Your task to perform on an android device: View the shopping cart on target. Search for "bose soundsport free" on target, select the first entry, and add it to the cart. Image 0: 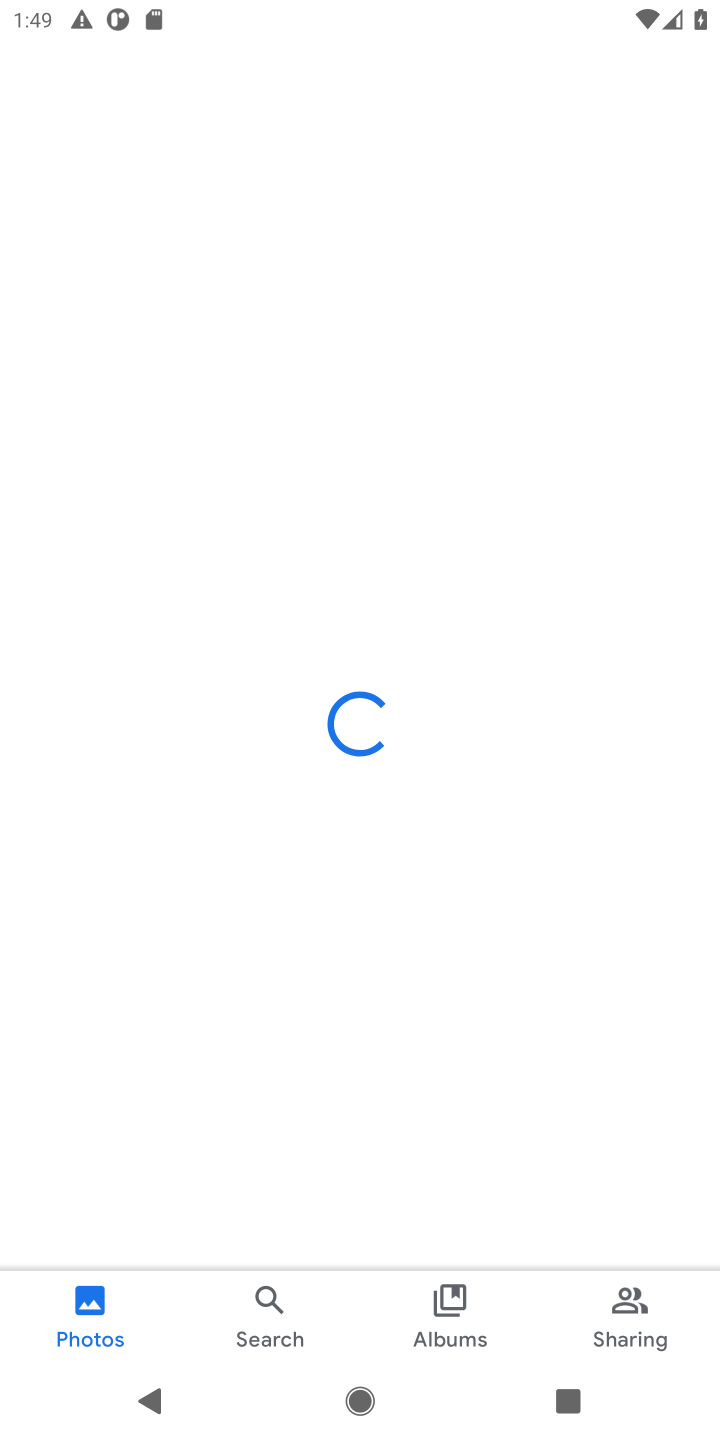
Step 0: press home button
Your task to perform on an android device: View the shopping cart on target. Search for "bose soundsport free" on target, select the first entry, and add it to the cart. Image 1: 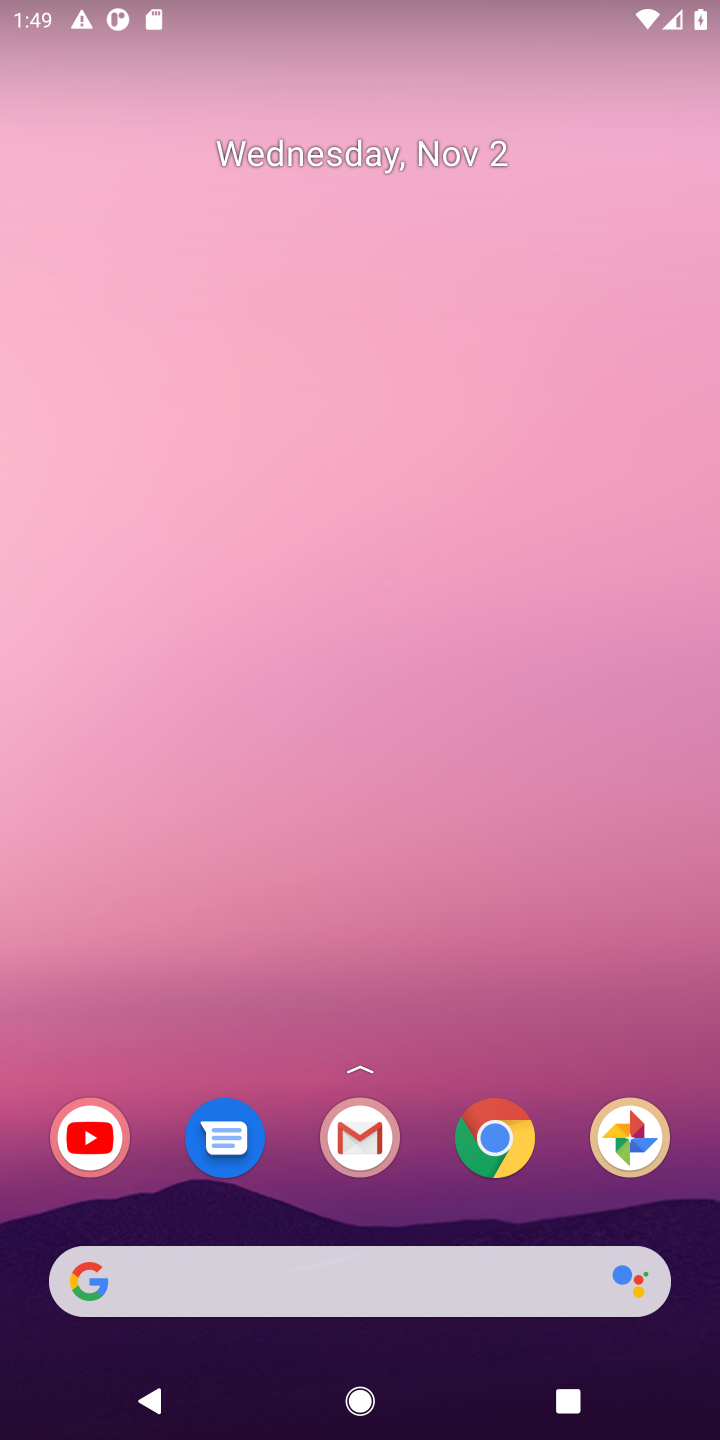
Step 1: click (142, 1277)
Your task to perform on an android device: View the shopping cart on target. Search for "bose soundsport free" on target, select the first entry, and add it to the cart. Image 2: 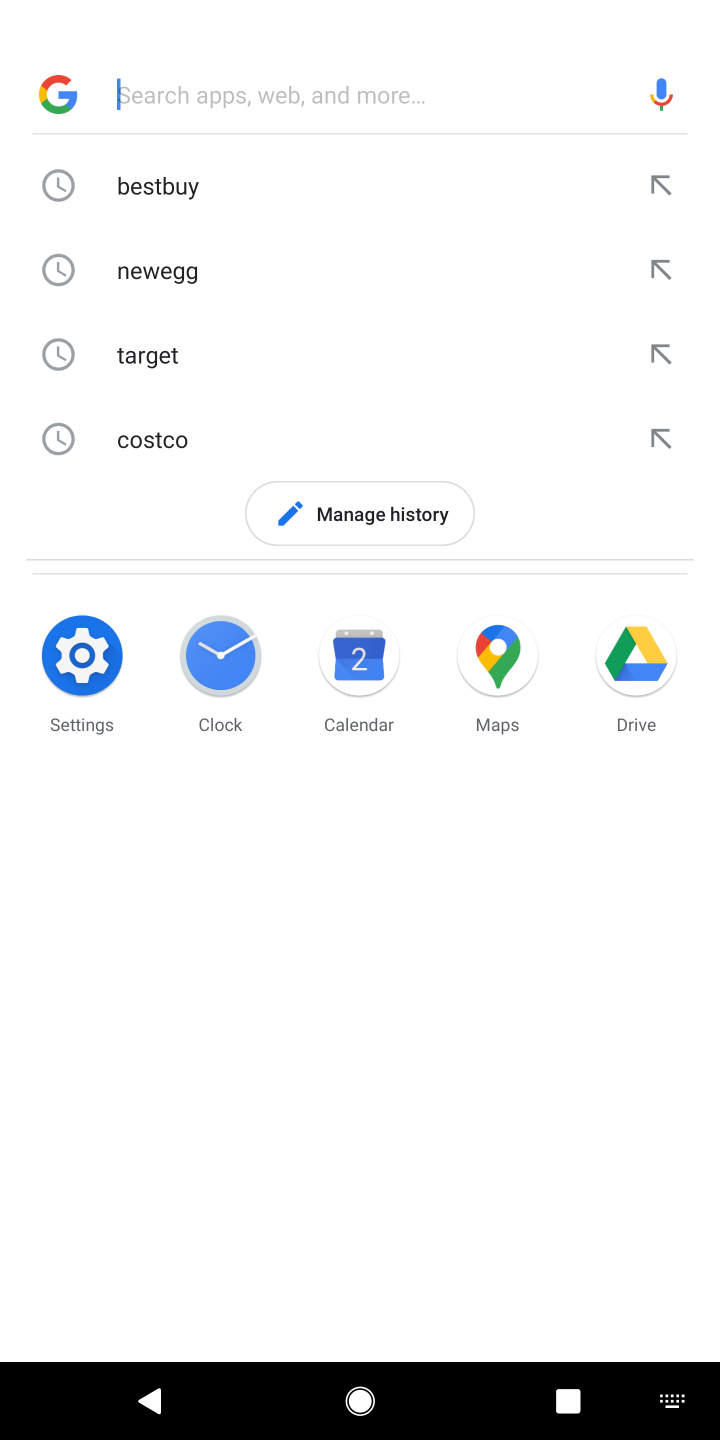
Step 2: click (145, 354)
Your task to perform on an android device: View the shopping cart on target. Search for "bose soundsport free" on target, select the first entry, and add it to the cart. Image 3: 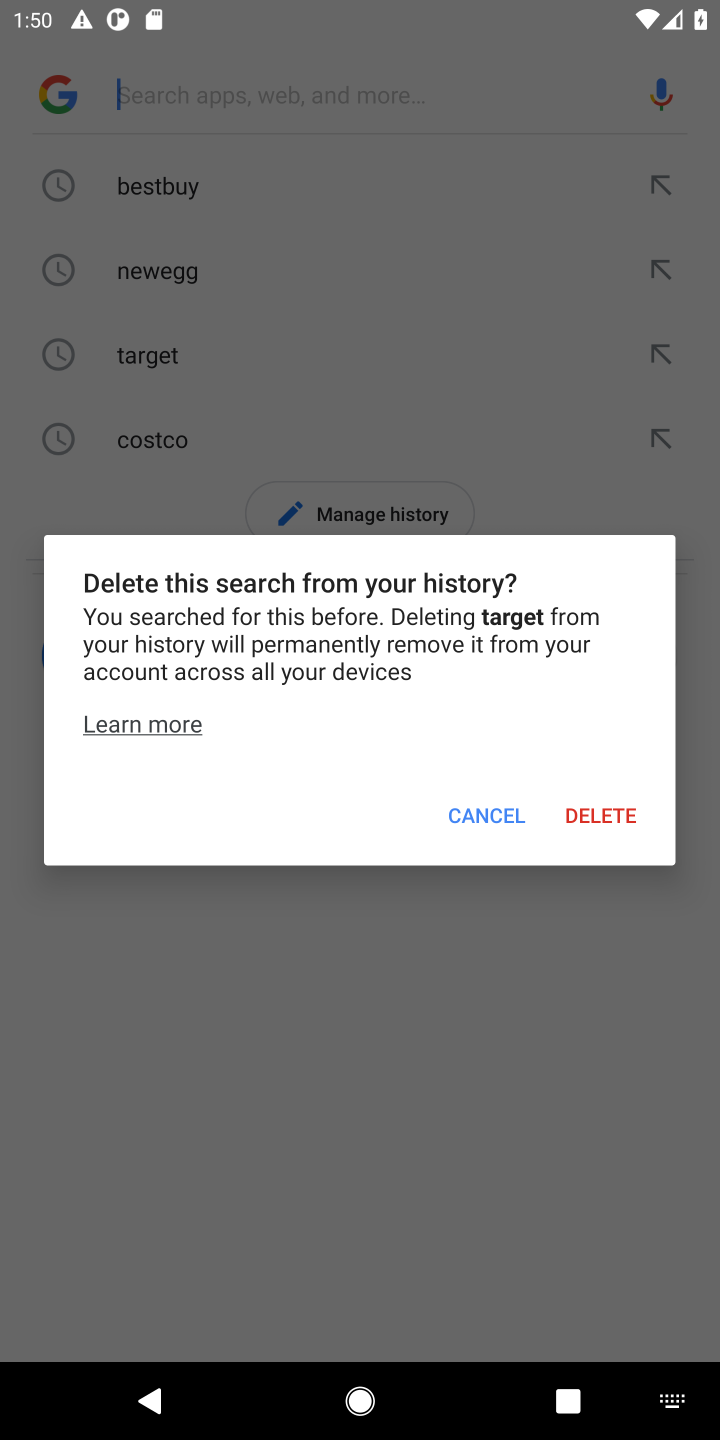
Step 3: click (496, 819)
Your task to perform on an android device: View the shopping cart on target. Search for "bose soundsport free" on target, select the first entry, and add it to the cart. Image 4: 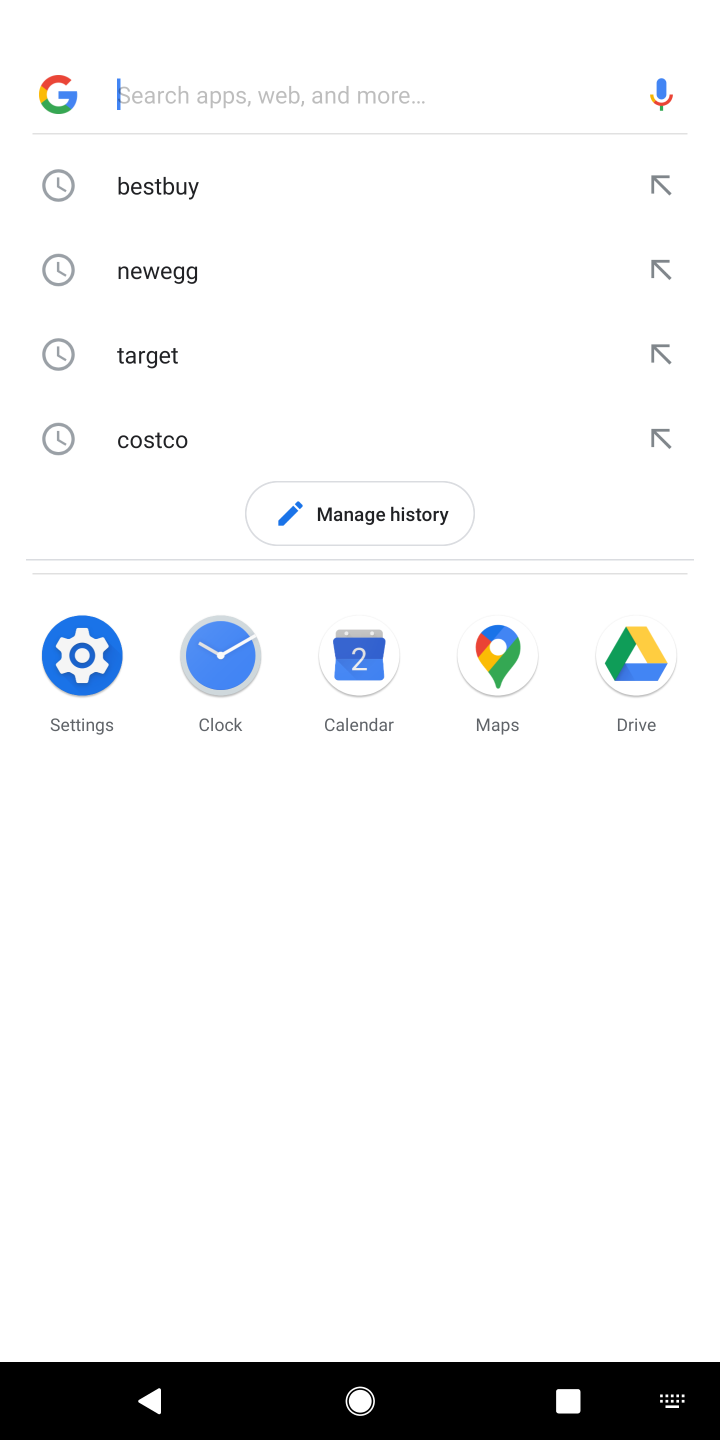
Step 4: click (146, 344)
Your task to perform on an android device: View the shopping cart on target. Search for "bose soundsport free" on target, select the first entry, and add it to the cart. Image 5: 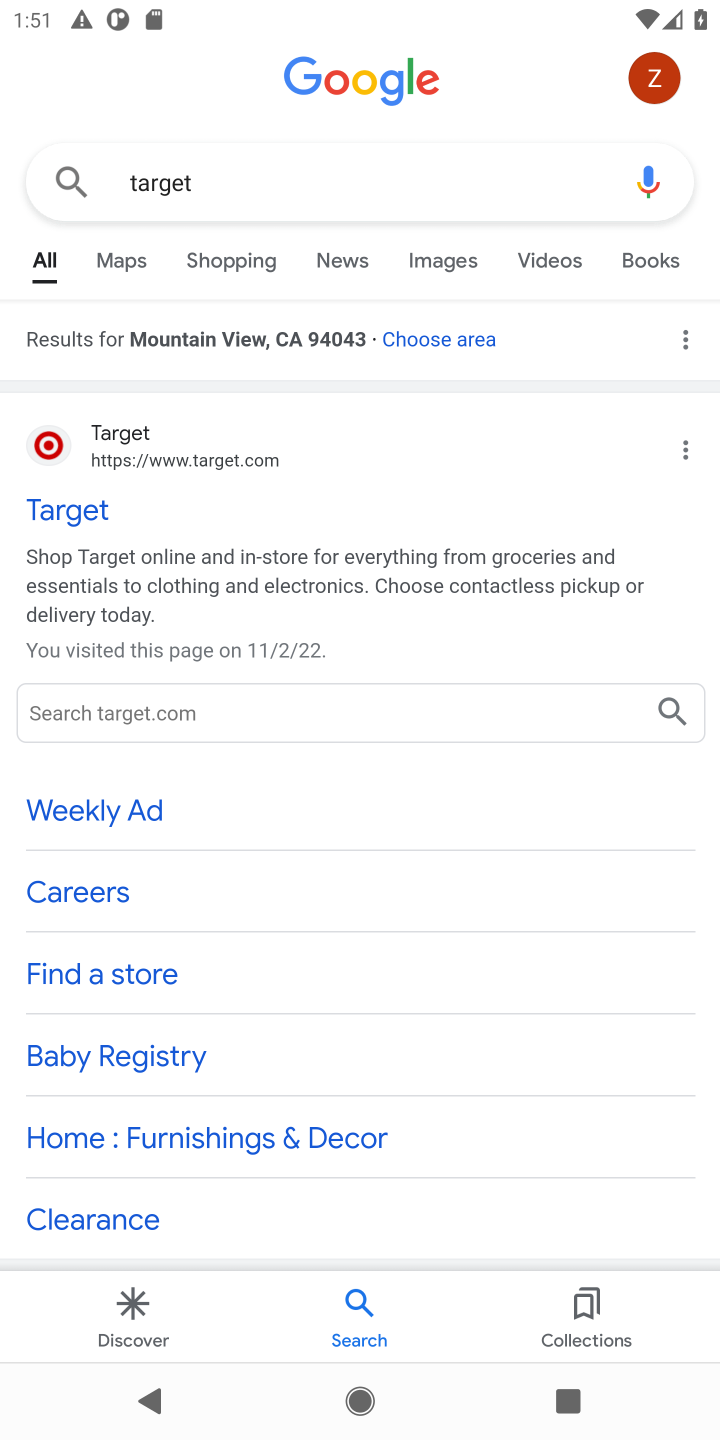
Step 5: click (72, 500)
Your task to perform on an android device: View the shopping cart on target. Search for "bose soundsport free" on target, select the first entry, and add it to the cart. Image 6: 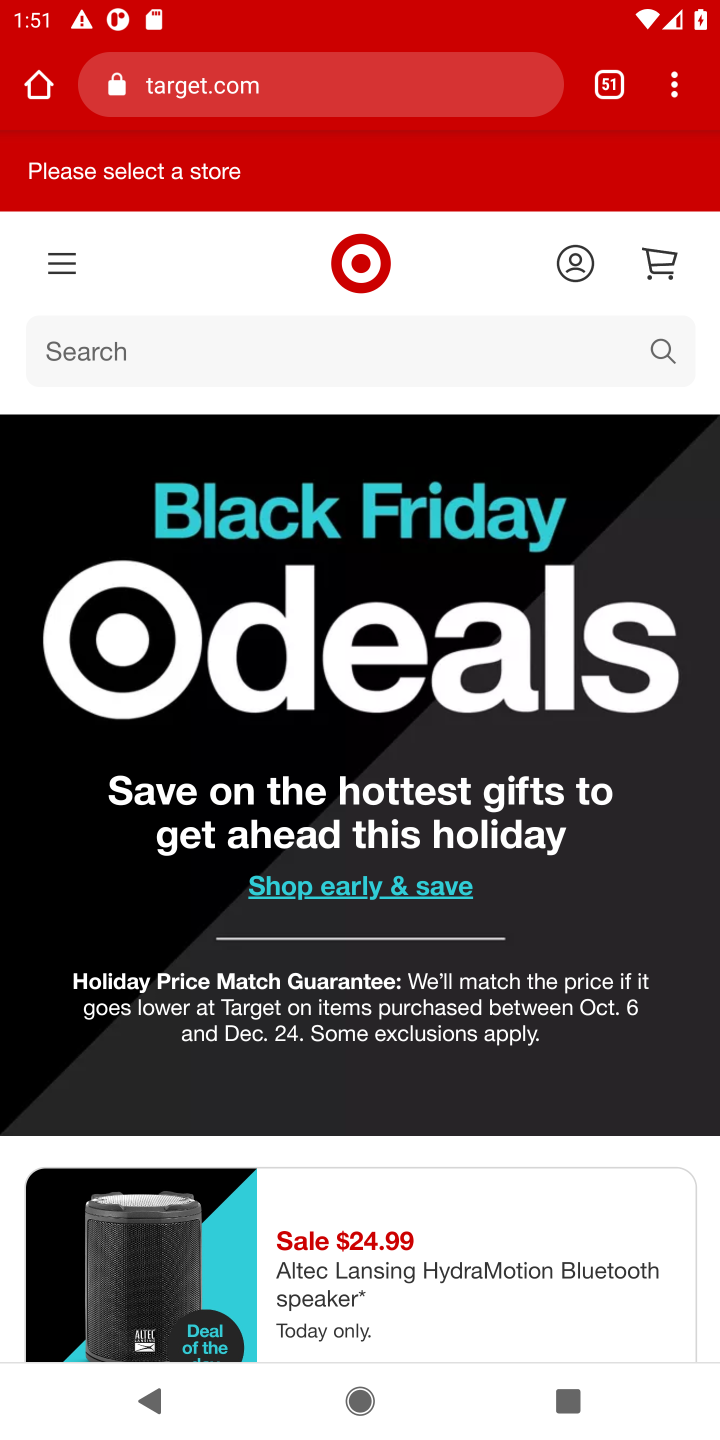
Step 6: click (122, 347)
Your task to perform on an android device: View the shopping cart on target. Search for "bose soundsport free" on target, select the first entry, and add it to the cart. Image 7: 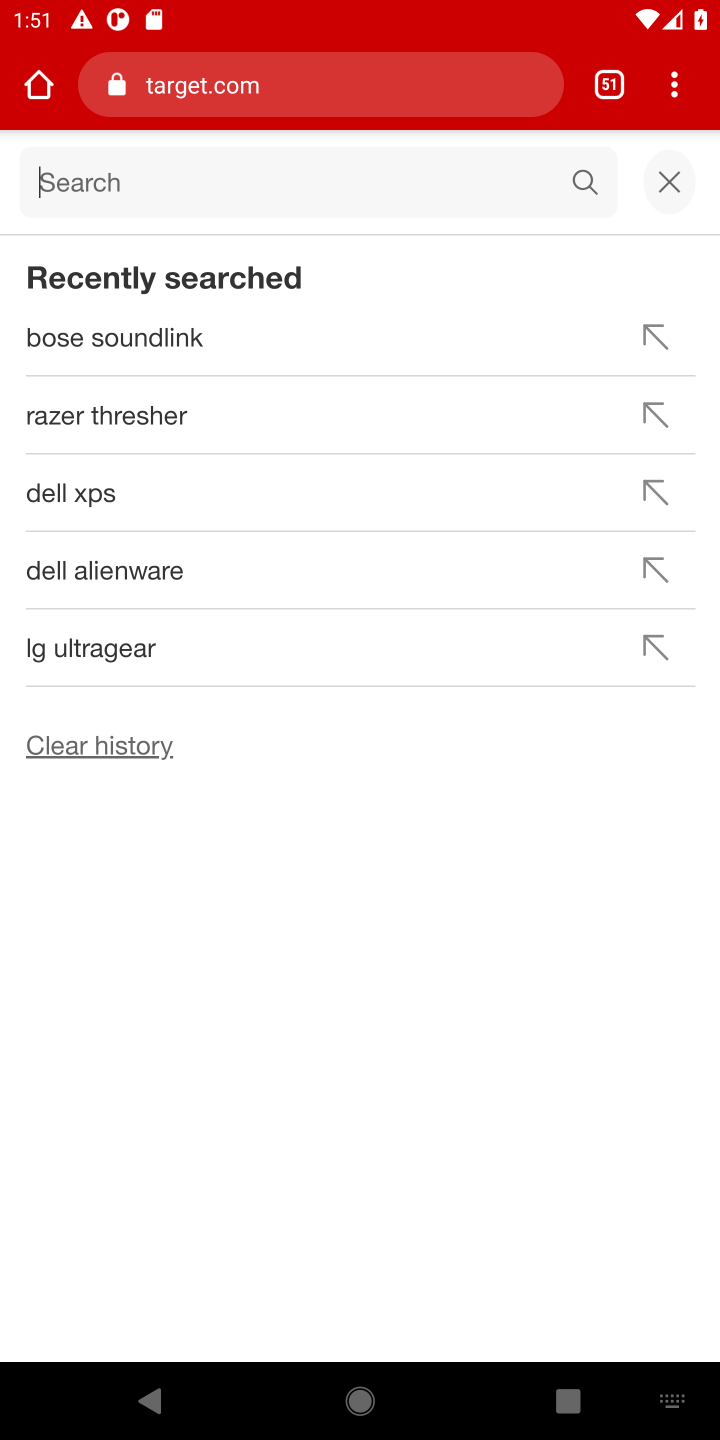
Step 7: type "bose soundsport free"
Your task to perform on an android device: View the shopping cart on target. Search for "bose soundsport free" on target, select the first entry, and add it to the cart. Image 8: 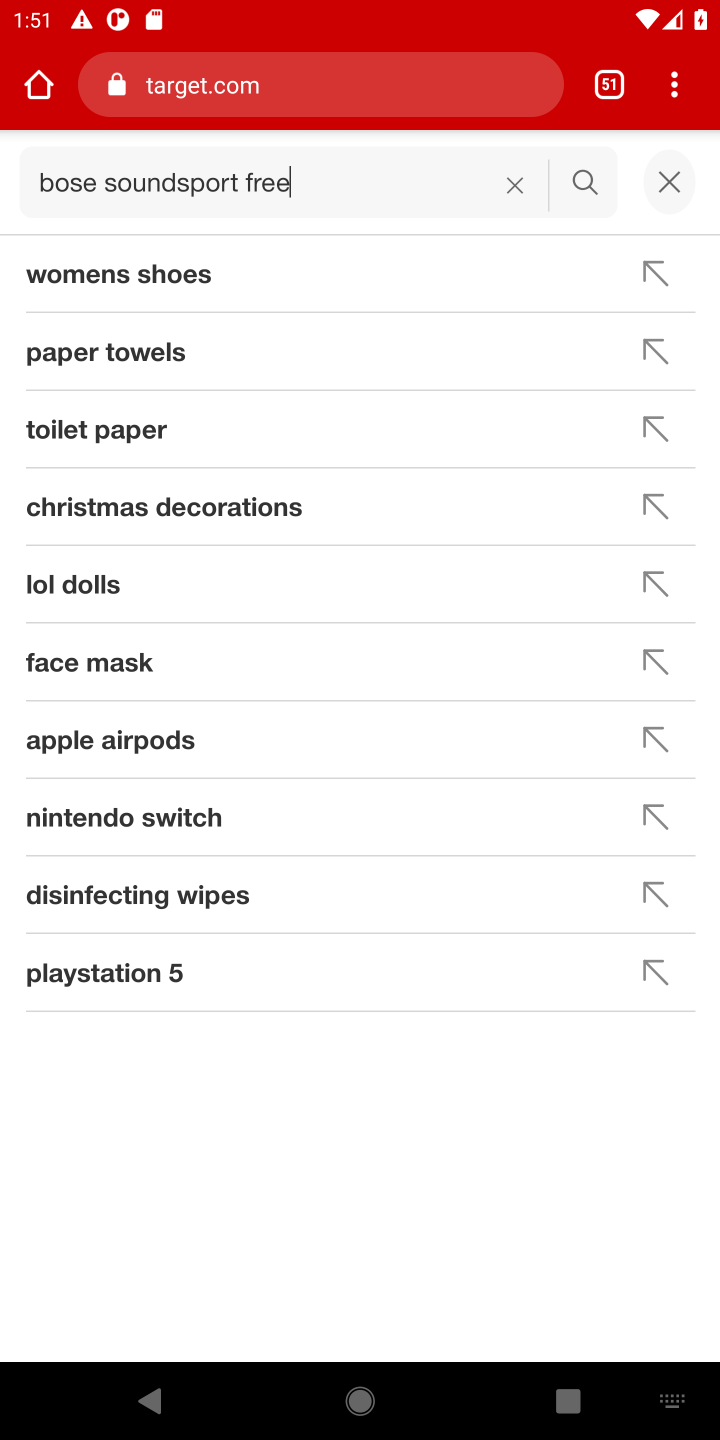
Step 8: press enter
Your task to perform on an android device: View the shopping cart on target. Search for "bose soundsport free" on target, select the first entry, and add it to the cart. Image 9: 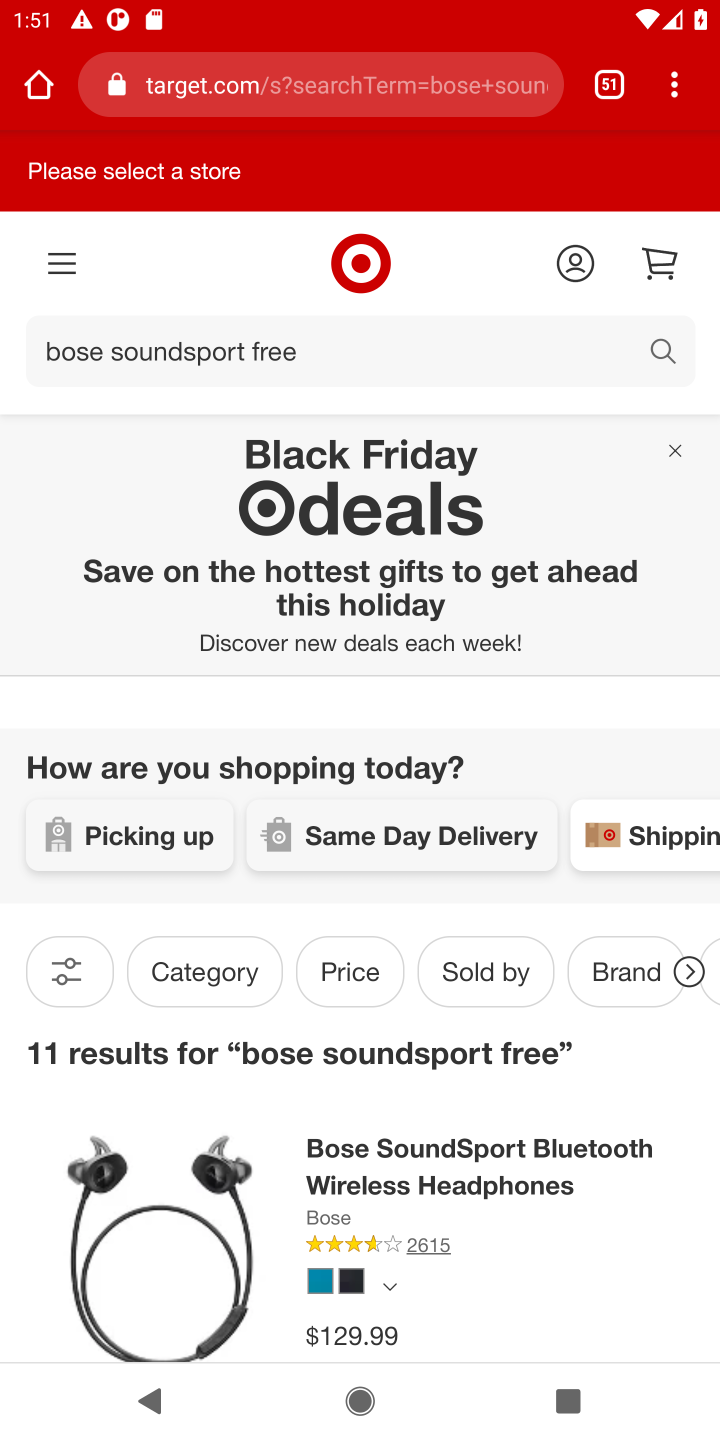
Step 9: drag from (414, 1162) to (450, 728)
Your task to perform on an android device: View the shopping cart on target. Search for "bose soundsport free" on target, select the first entry, and add it to the cart. Image 10: 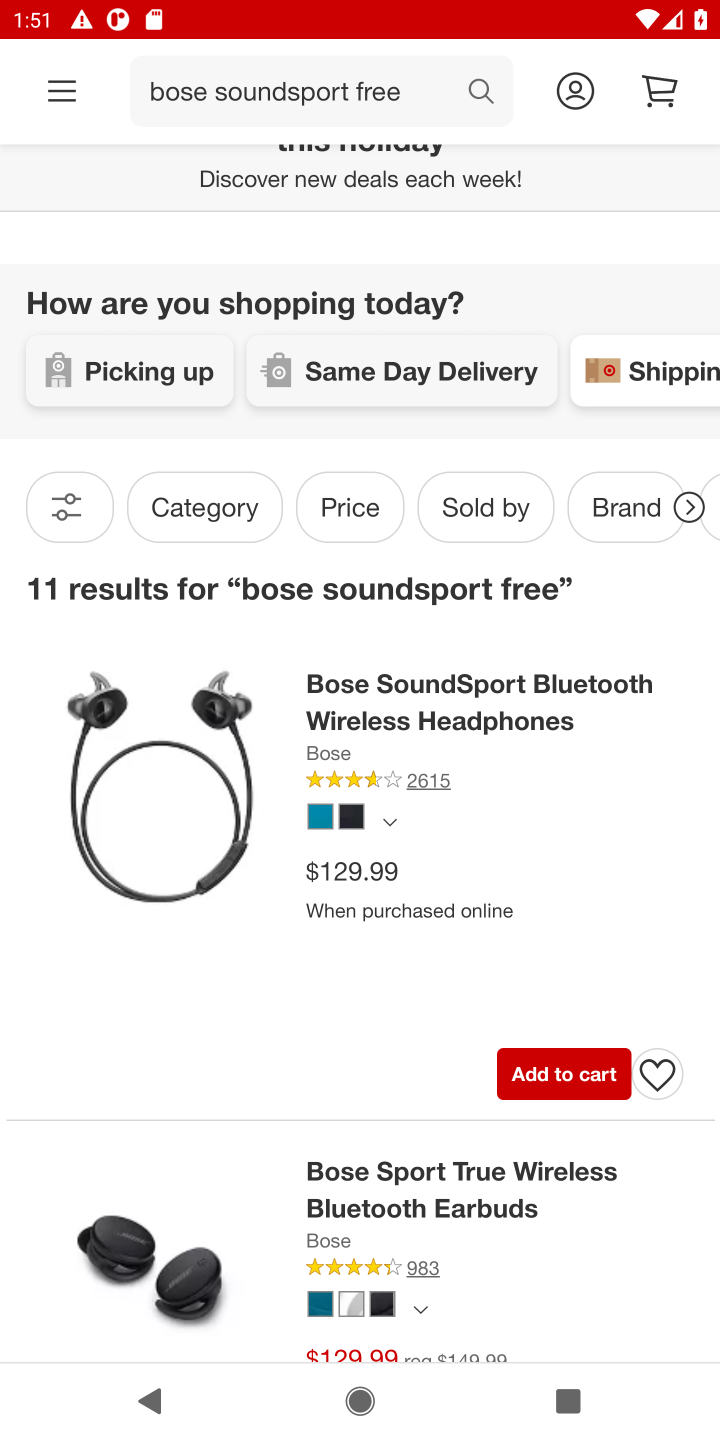
Step 10: click (579, 1083)
Your task to perform on an android device: View the shopping cart on target. Search for "bose soundsport free" on target, select the first entry, and add it to the cart. Image 11: 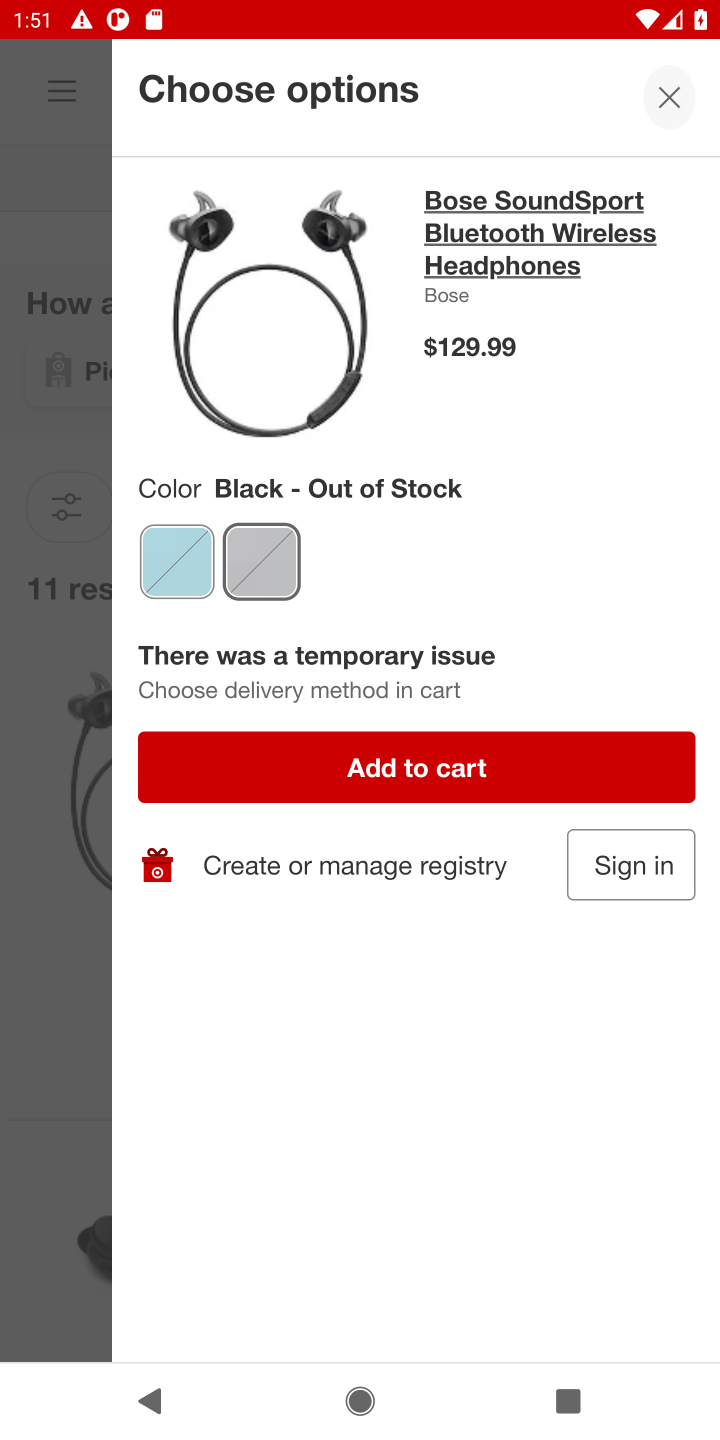
Step 11: click (442, 773)
Your task to perform on an android device: View the shopping cart on target. Search for "bose soundsport free" on target, select the first entry, and add it to the cart. Image 12: 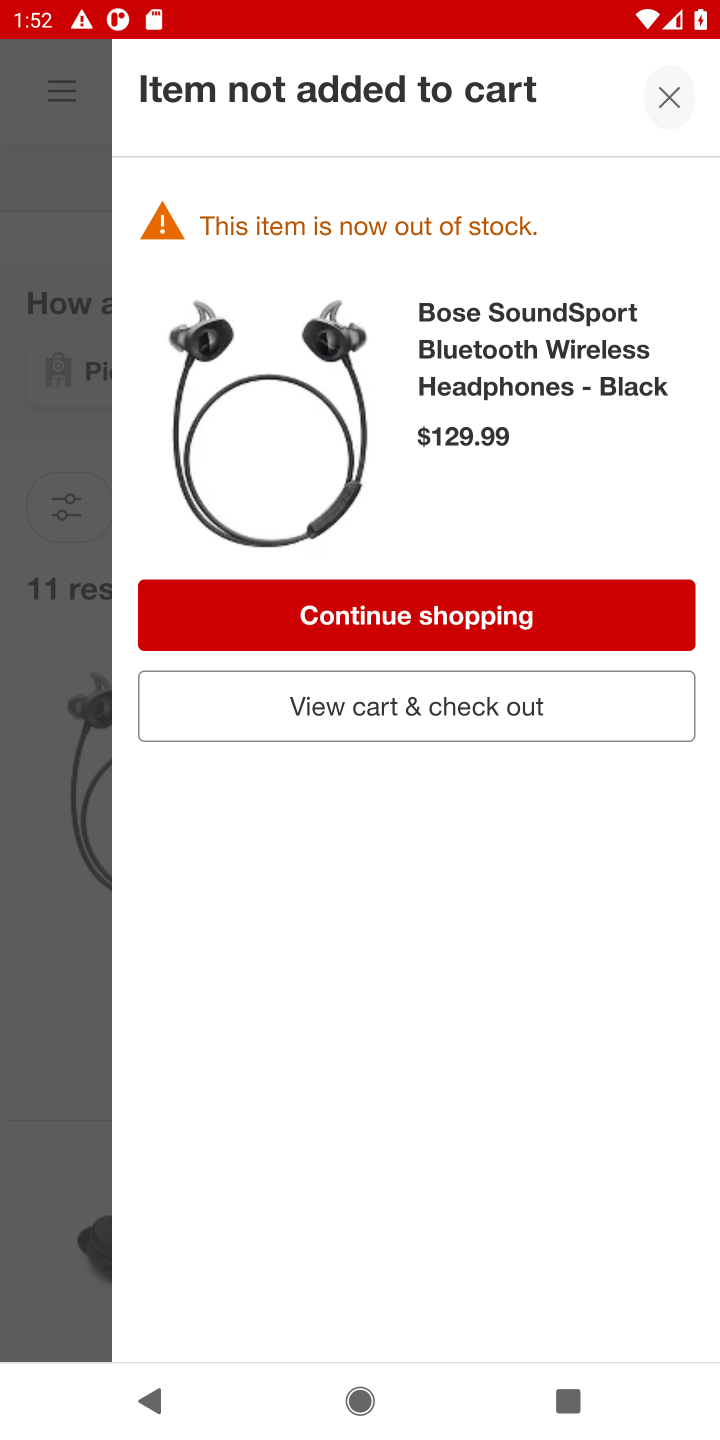
Step 12: task complete